Your task to perform on an android device: check google app version Image 0: 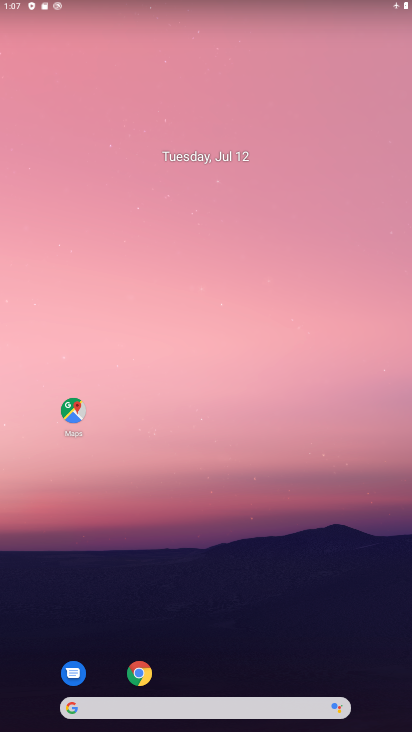
Step 0: drag from (233, 635) to (201, 207)
Your task to perform on an android device: check google app version Image 1: 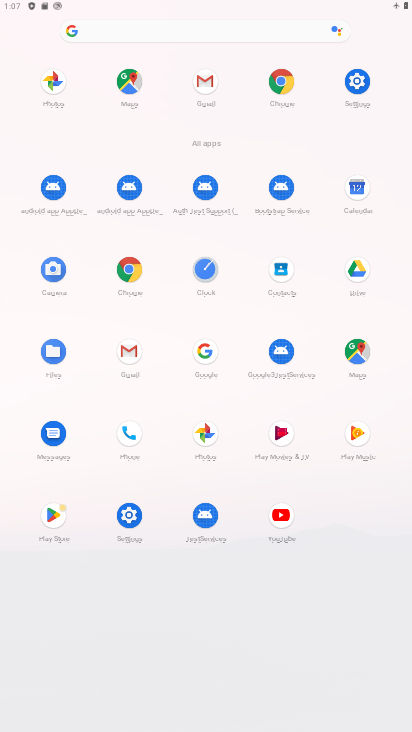
Step 1: click (191, 342)
Your task to perform on an android device: check google app version Image 2: 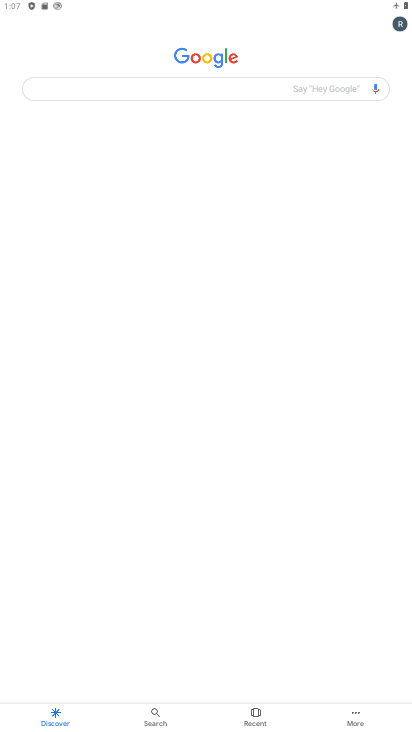
Step 2: click (352, 717)
Your task to perform on an android device: check google app version Image 3: 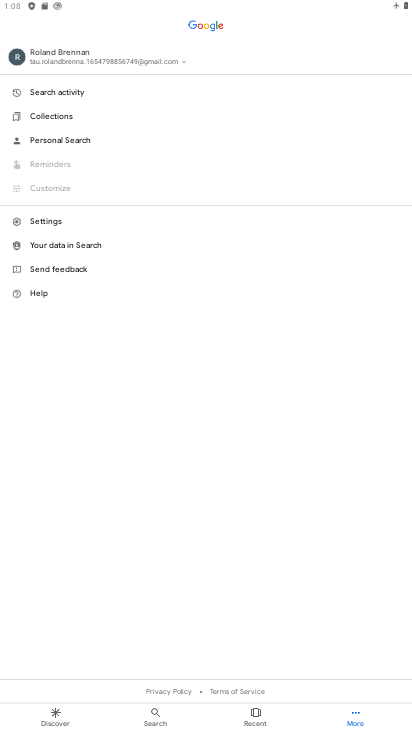
Step 3: click (50, 217)
Your task to perform on an android device: check google app version Image 4: 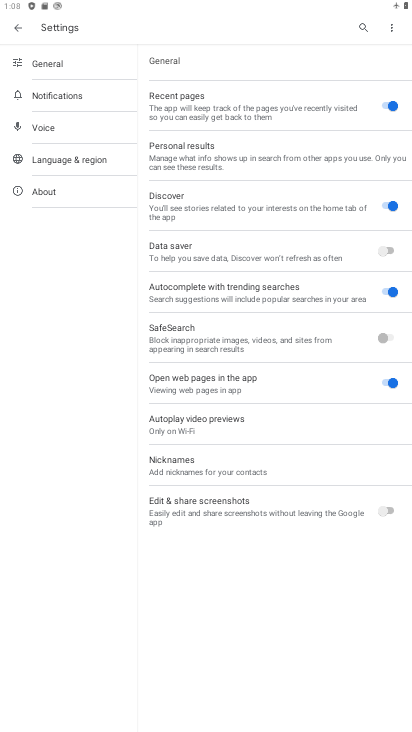
Step 4: click (56, 195)
Your task to perform on an android device: check google app version Image 5: 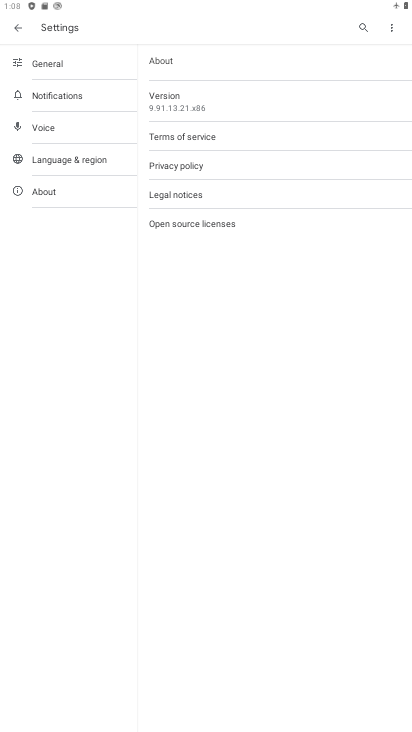
Step 5: click (210, 104)
Your task to perform on an android device: check google app version Image 6: 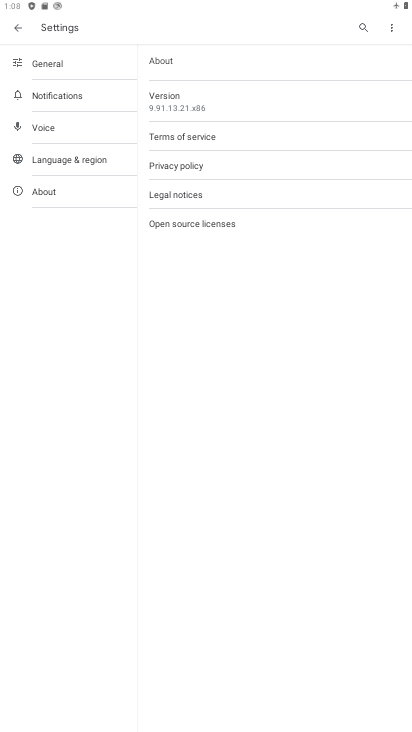
Step 6: task complete